Your task to perform on an android device: What's the weather? Image 0: 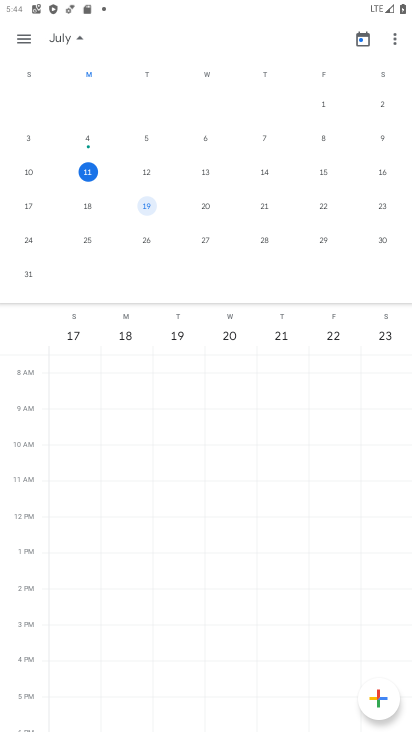
Step 0: press home button
Your task to perform on an android device: What's the weather? Image 1: 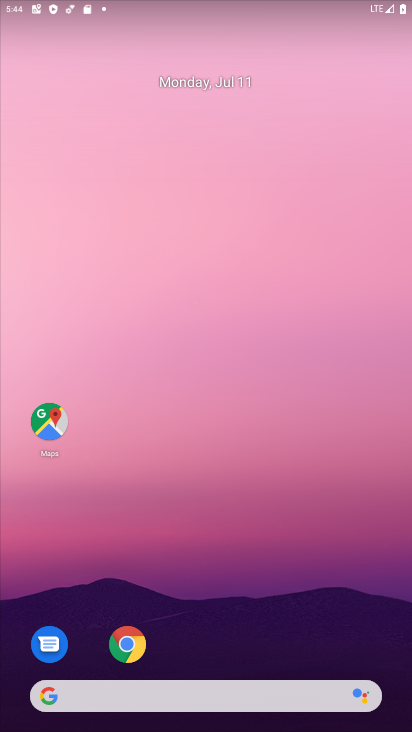
Step 1: drag from (214, 696) to (291, 101)
Your task to perform on an android device: What's the weather? Image 2: 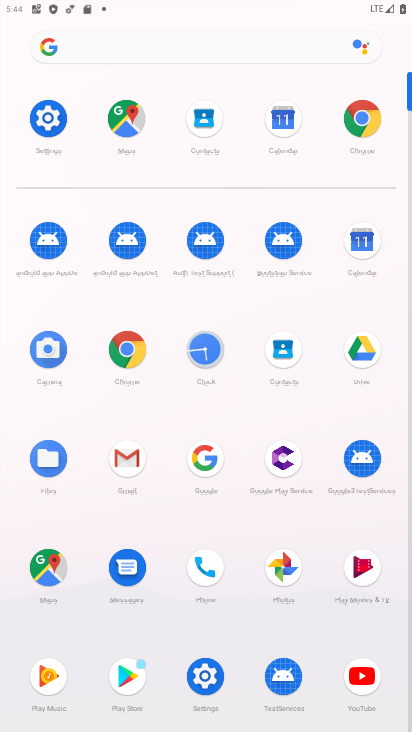
Step 2: click (118, 357)
Your task to perform on an android device: What's the weather? Image 3: 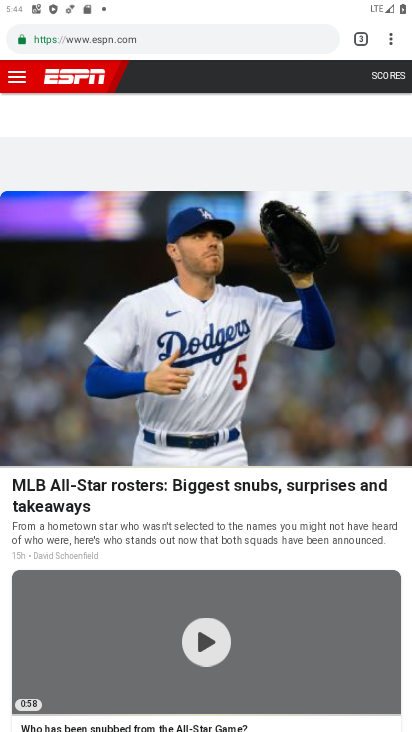
Step 3: click (137, 38)
Your task to perform on an android device: What's the weather? Image 4: 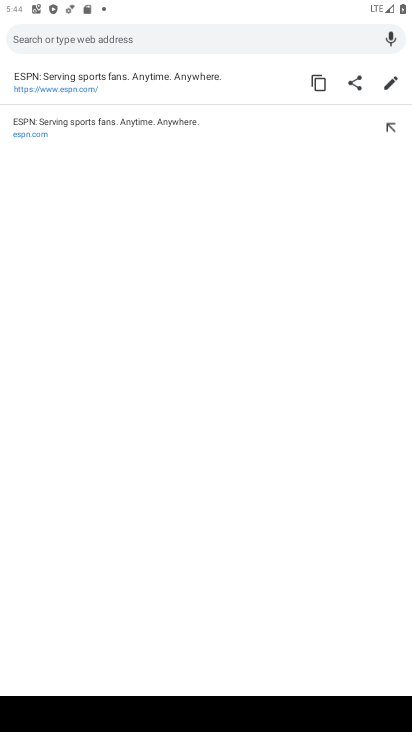
Step 4: type "weather"
Your task to perform on an android device: What's the weather? Image 5: 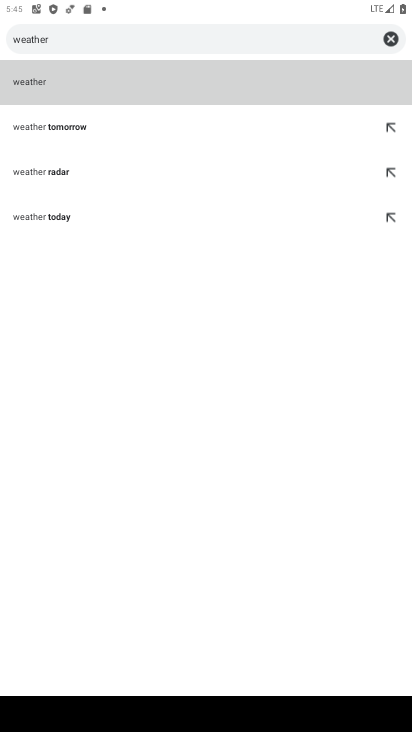
Step 5: click (79, 94)
Your task to perform on an android device: What's the weather? Image 6: 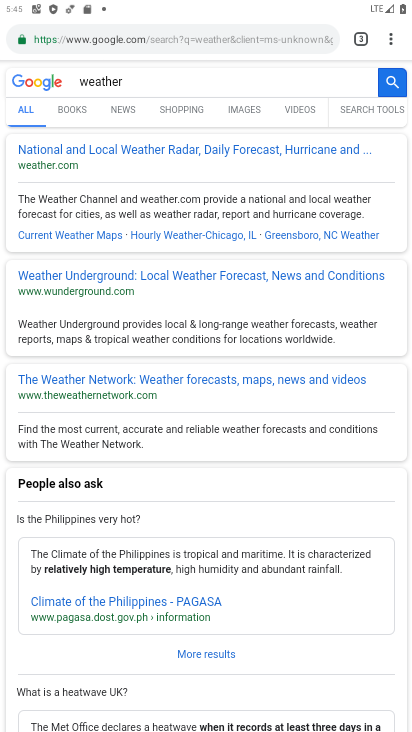
Step 6: click (261, 35)
Your task to perform on an android device: What's the weather? Image 7: 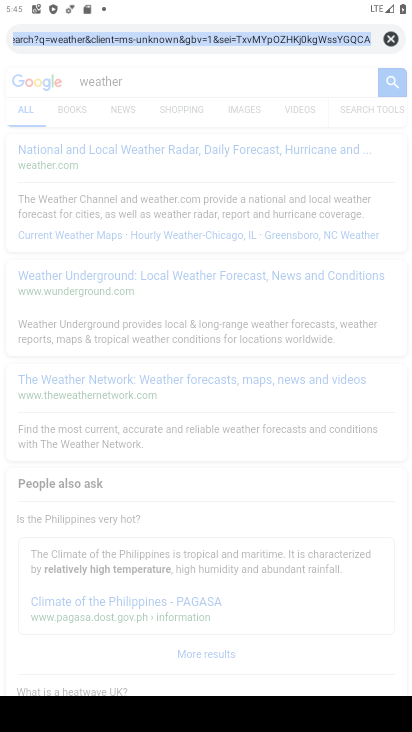
Step 7: type "whats the weather"
Your task to perform on an android device: What's the weather? Image 8: 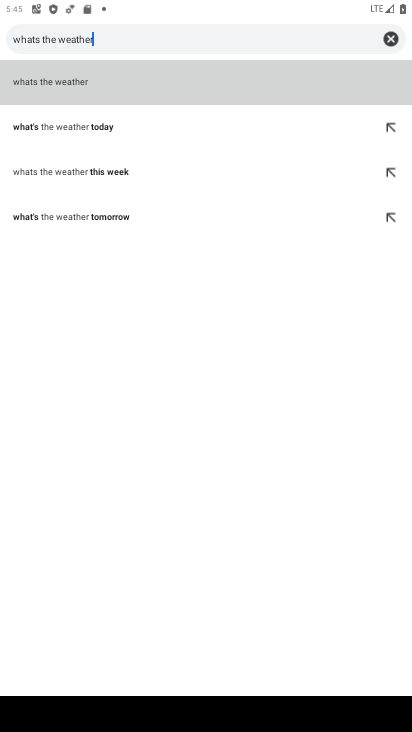
Step 8: click (89, 129)
Your task to perform on an android device: What's the weather? Image 9: 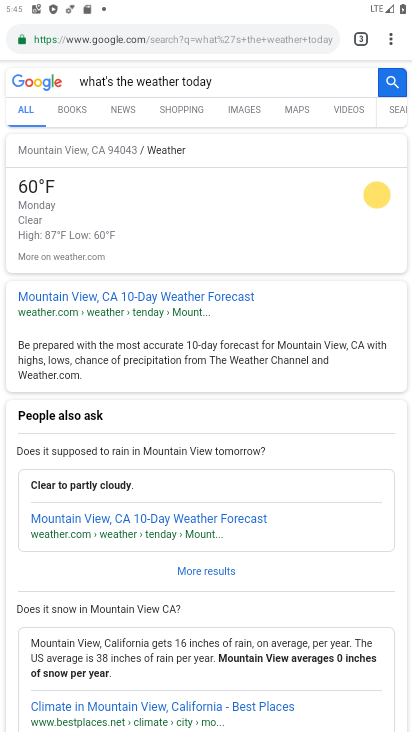
Step 9: task complete